Your task to perform on an android device: Open calendar and show me the third week of next month Image 0: 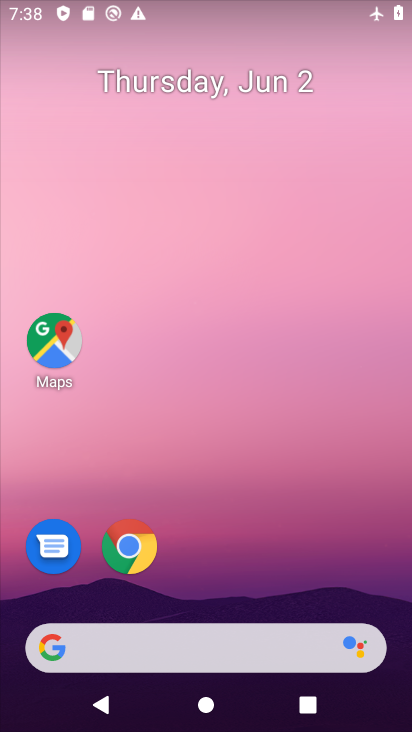
Step 0: click (409, 516)
Your task to perform on an android device: Open calendar and show me the third week of next month Image 1: 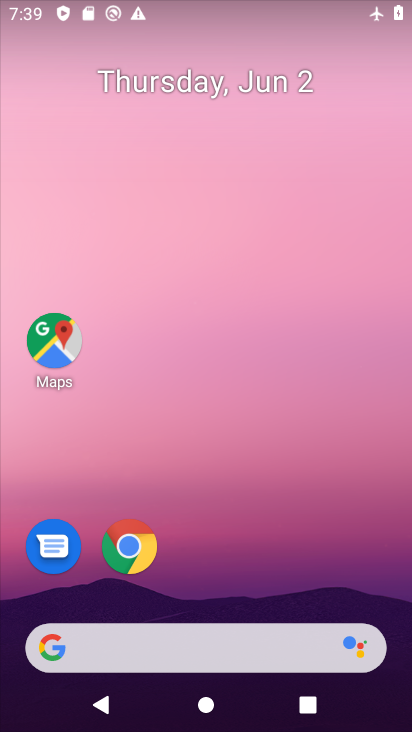
Step 1: drag from (262, 709) to (182, 113)
Your task to perform on an android device: Open calendar and show me the third week of next month Image 2: 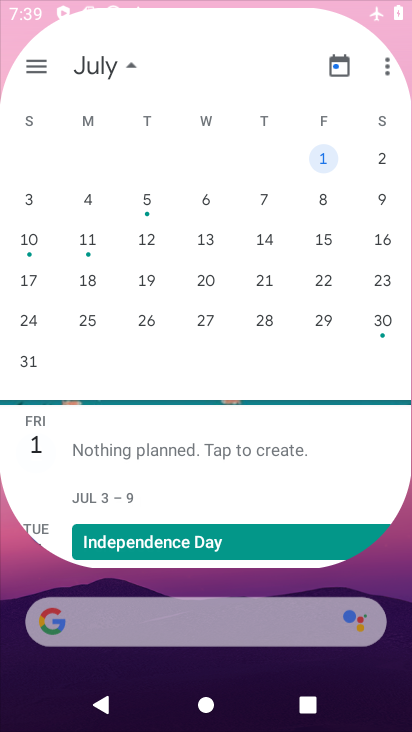
Step 2: drag from (235, 701) to (223, 63)
Your task to perform on an android device: Open calendar and show me the third week of next month Image 3: 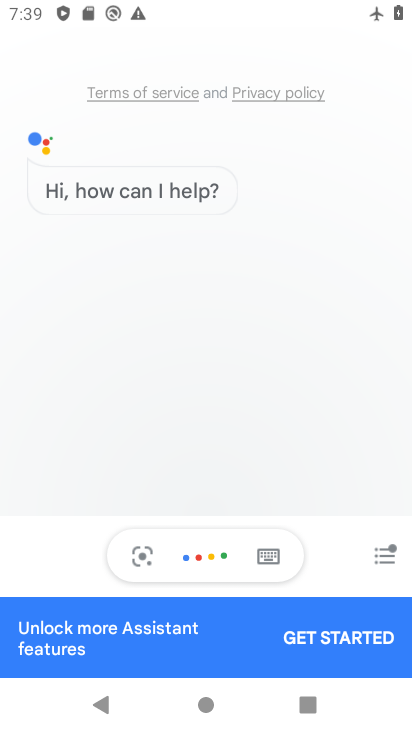
Step 3: drag from (160, 10) to (211, 27)
Your task to perform on an android device: Open calendar and show me the third week of next month Image 4: 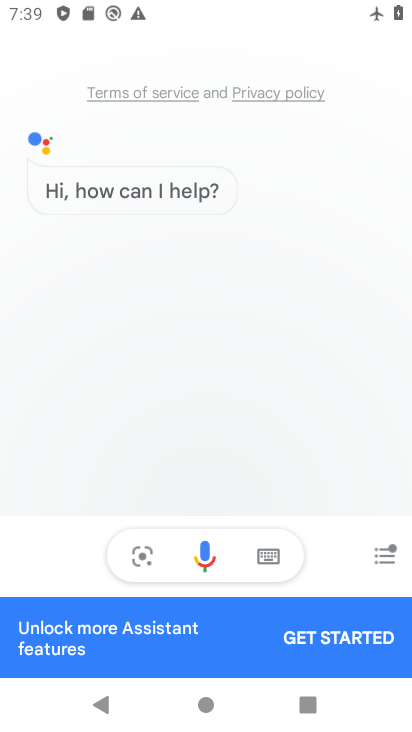
Step 4: press back button
Your task to perform on an android device: Open calendar and show me the third week of next month Image 5: 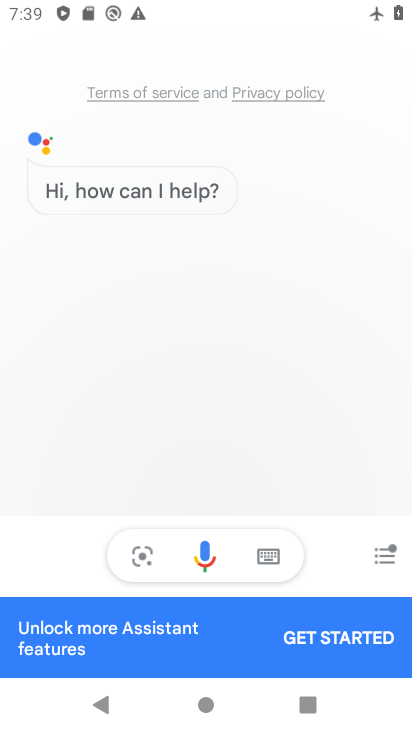
Step 5: press home button
Your task to perform on an android device: Open calendar and show me the third week of next month Image 6: 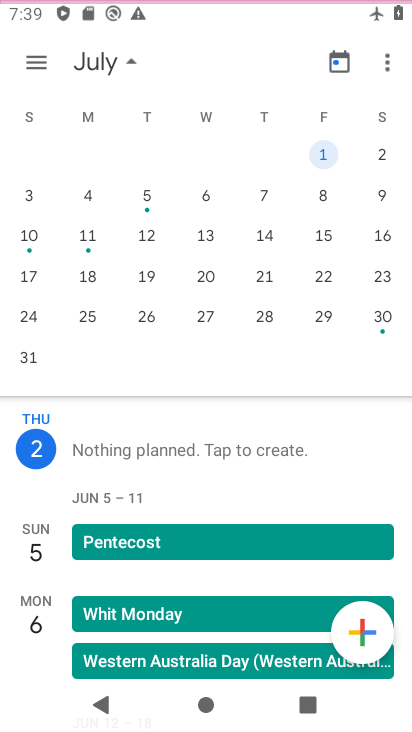
Step 6: press back button
Your task to perform on an android device: Open calendar and show me the third week of next month Image 7: 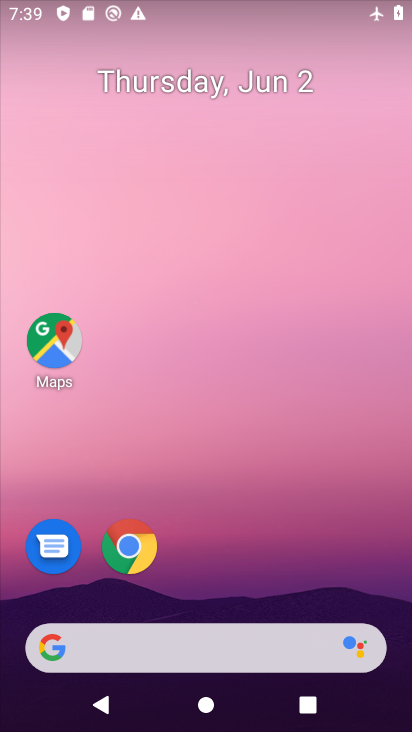
Step 7: drag from (241, 689) to (210, 257)
Your task to perform on an android device: Open calendar and show me the third week of next month Image 8: 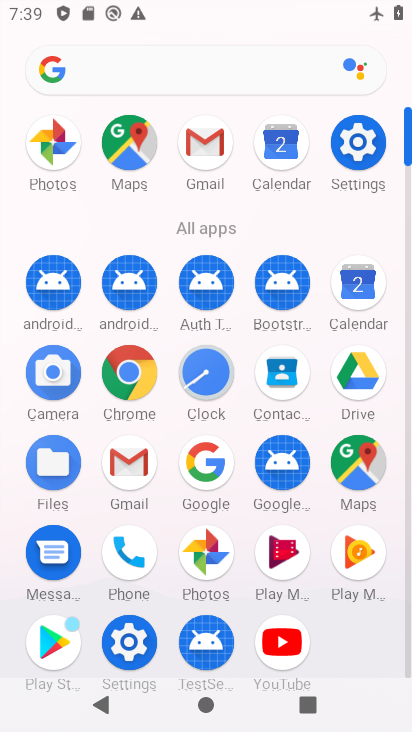
Step 8: click (355, 275)
Your task to perform on an android device: Open calendar and show me the third week of next month Image 9: 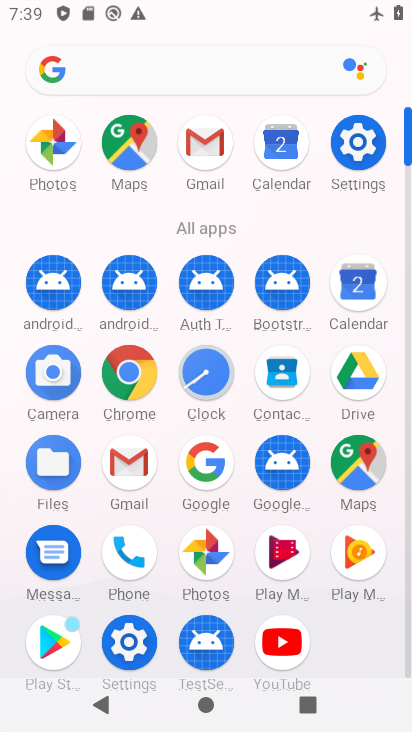
Step 9: click (355, 275)
Your task to perform on an android device: Open calendar and show me the third week of next month Image 10: 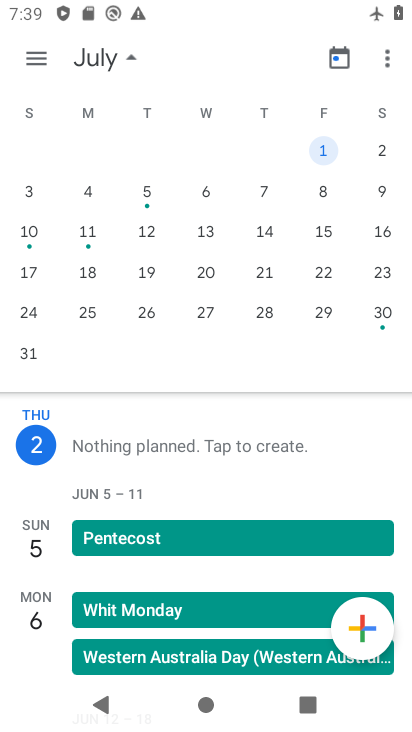
Step 10: click (362, 277)
Your task to perform on an android device: Open calendar and show me the third week of next month Image 11: 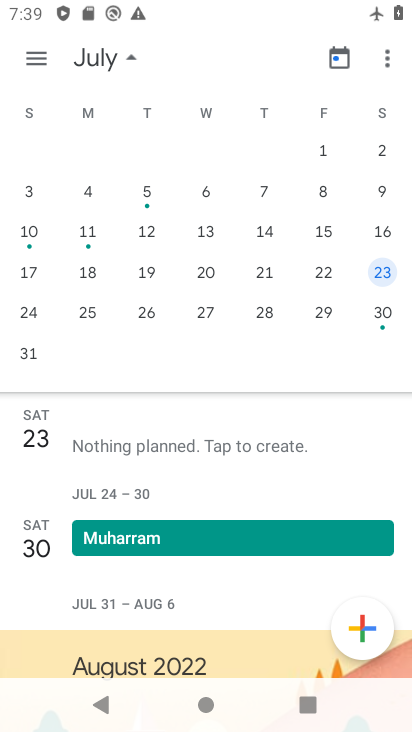
Step 11: click (320, 231)
Your task to perform on an android device: Open calendar and show me the third week of next month Image 12: 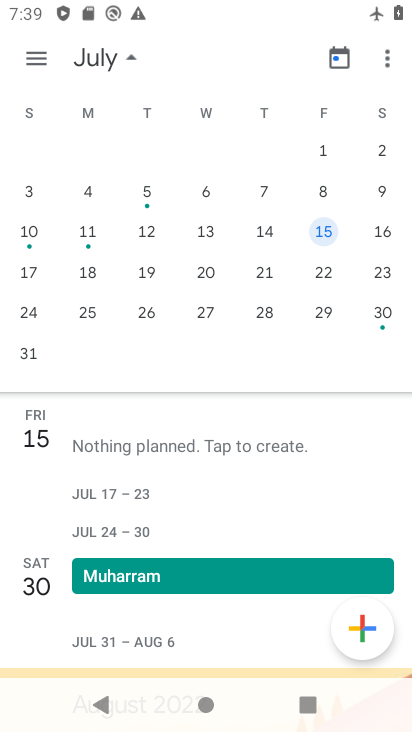
Step 12: click (319, 232)
Your task to perform on an android device: Open calendar and show me the third week of next month Image 13: 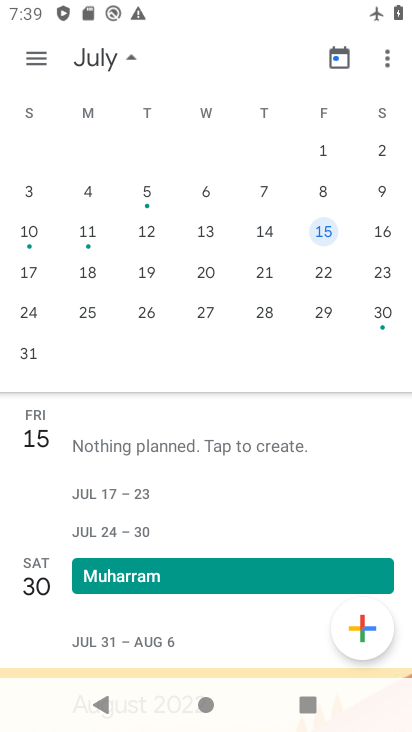
Step 13: click (319, 232)
Your task to perform on an android device: Open calendar and show me the third week of next month Image 14: 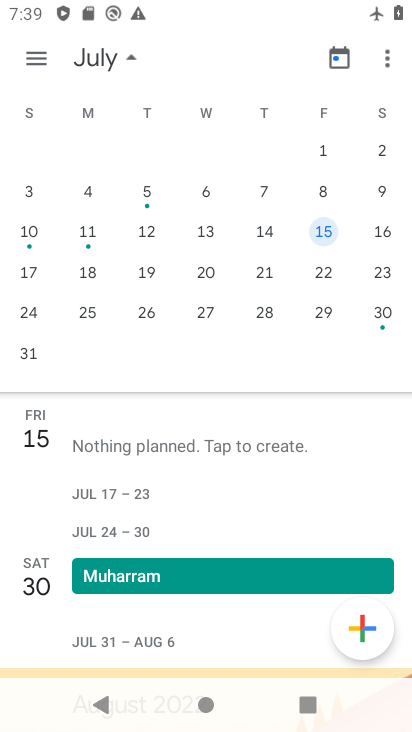
Step 14: click (319, 232)
Your task to perform on an android device: Open calendar and show me the third week of next month Image 15: 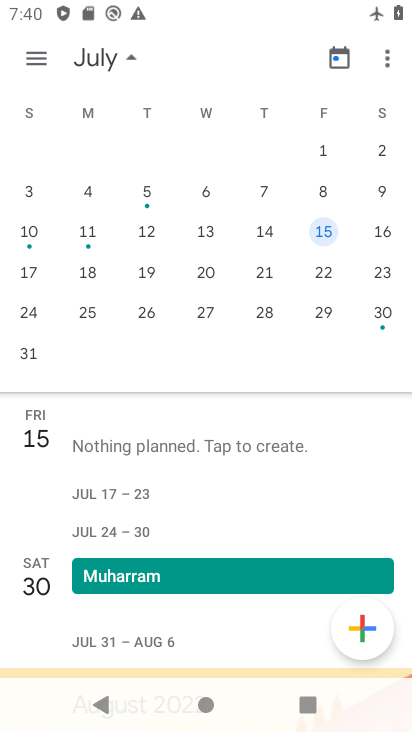
Step 15: task complete